Your task to perform on an android device: open chrome privacy settings Image 0: 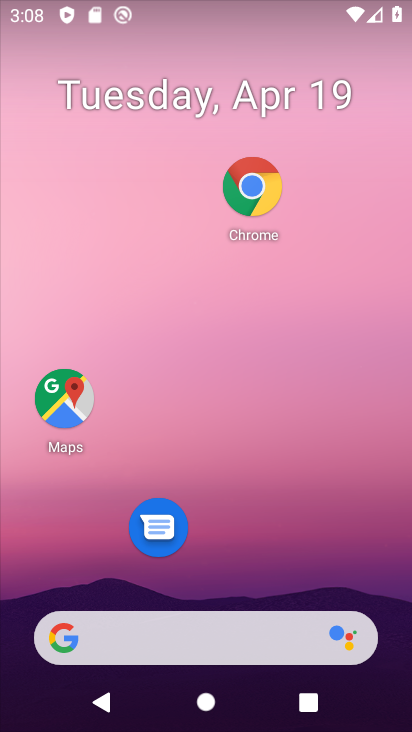
Step 0: drag from (306, 237) to (311, 202)
Your task to perform on an android device: open chrome privacy settings Image 1: 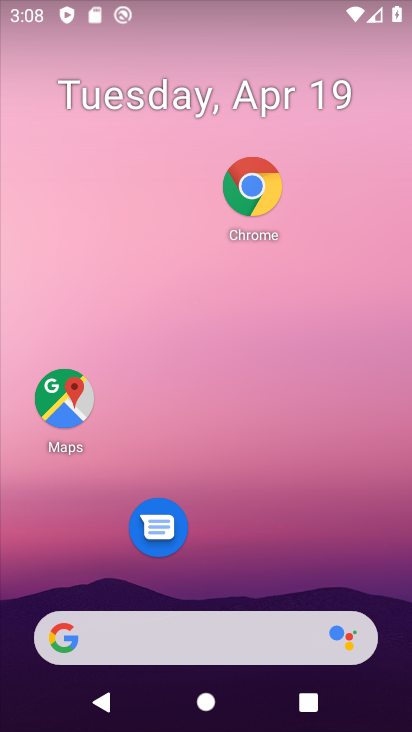
Step 1: drag from (247, 581) to (298, 138)
Your task to perform on an android device: open chrome privacy settings Image 2: 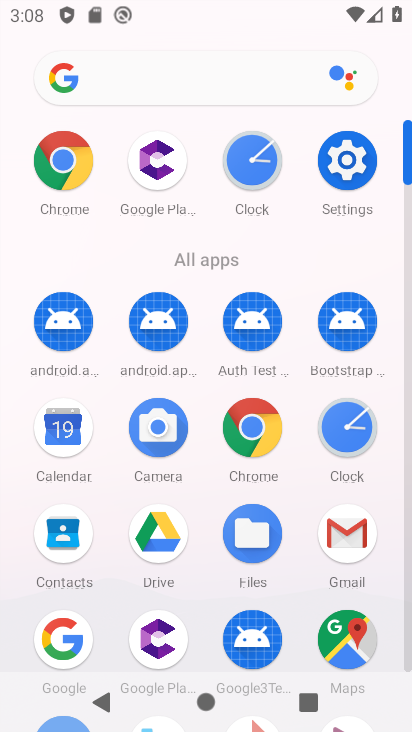
Step 2: click (69, 151)
Your task to perform on an android device: open chrome privacy settings Image 3: 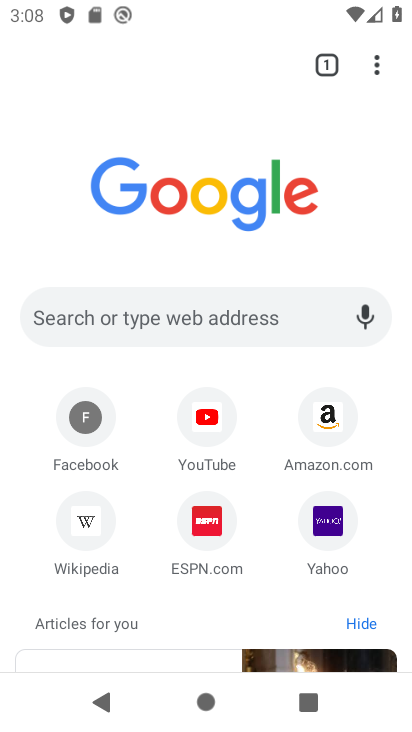
Step 3: click (378, 65)
Your task to perform on an android device: open chrome privacy settings Image 4: 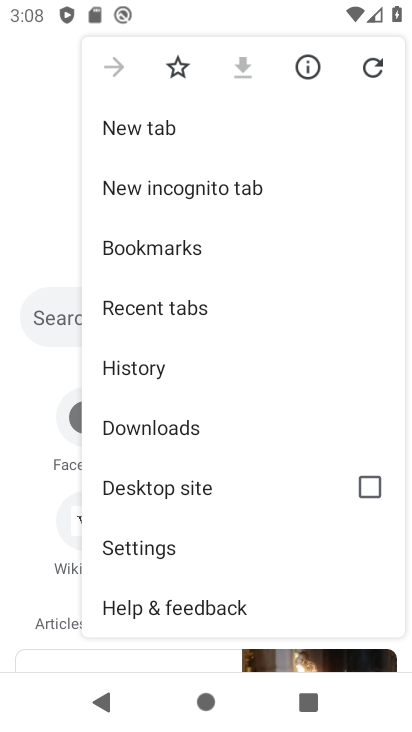
Step 4: click (193, 538)
Your task to perform on an android device: open chrome privacy settings Image 5: 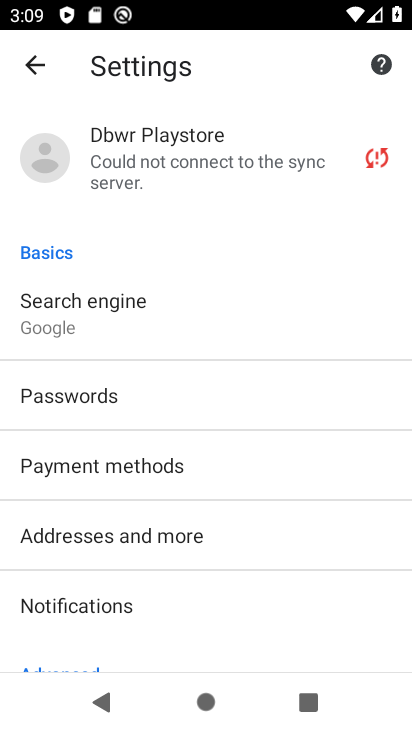
Step 5: drag from (150, 586) to (265, 257)
Your task to perform on an android device: open chrome privacy settings Image 6: 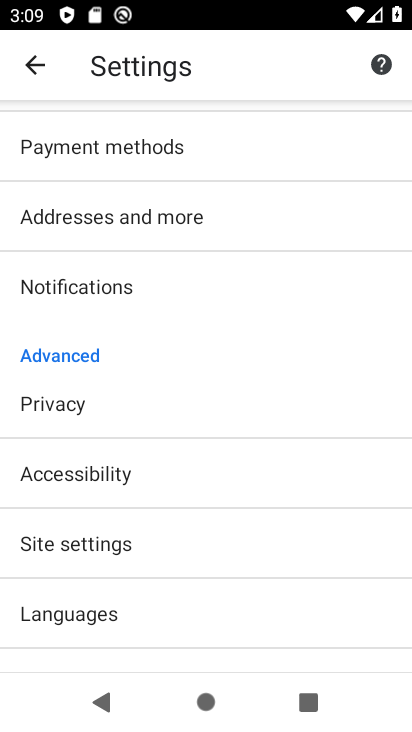
Step 6: click (79, 396)
Your task to perform on an android device: open chrome privacy settings Image 7: 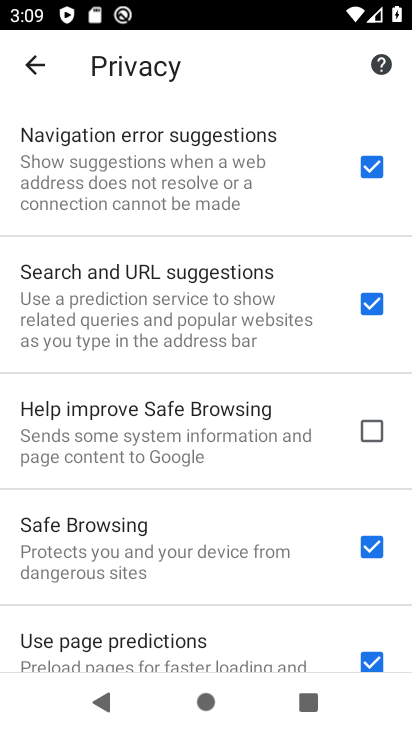
Step 7: task complete